Your task to perform on an android device: Go to Reddit.com Image 0: 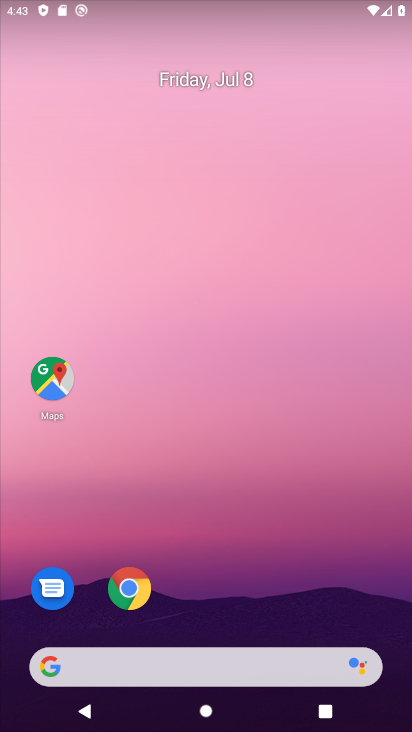
Step 0: click (204, 673)
Your task to perform on an android device: Go to Reddit.com Image 1: 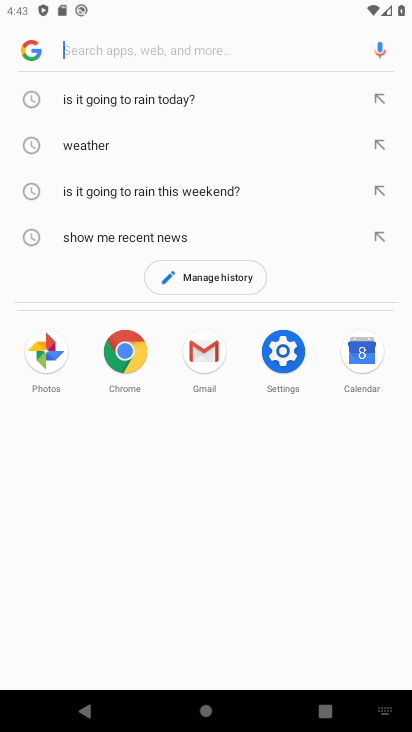
Step 1: type "reddit.com"
Your task to perform on an android device: Go to Reddit.com Image 2: 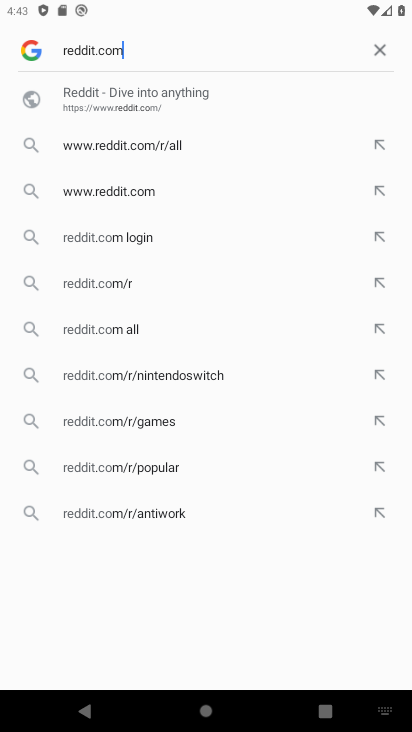
Step 2: type ""
Your task to perform on an android device: Go to Reddit.com Image 3: 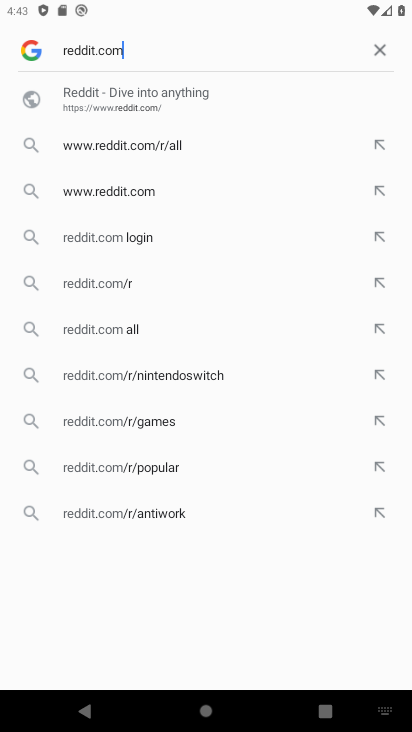
Step 3: press enter
Your task to perform on an android device: Go to Reddit.com Image 4: 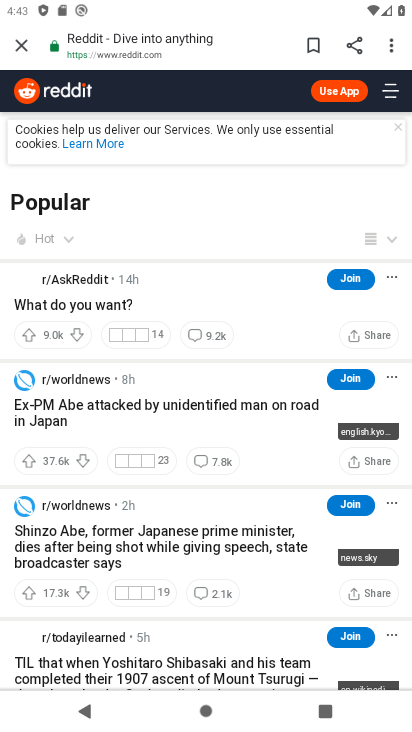
Step 4: task complete